Your task to perform on an android device: clear all cookies in the chrome app Image 0: 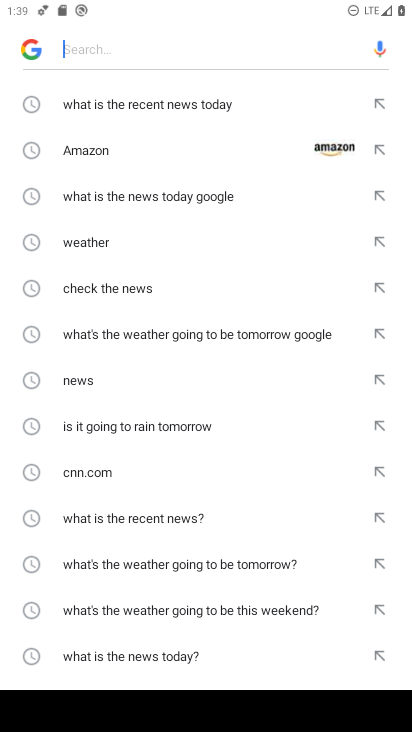
Step 0: press home button
Your task to perform on an android device: clear all cookies in the chrome app Image 1: 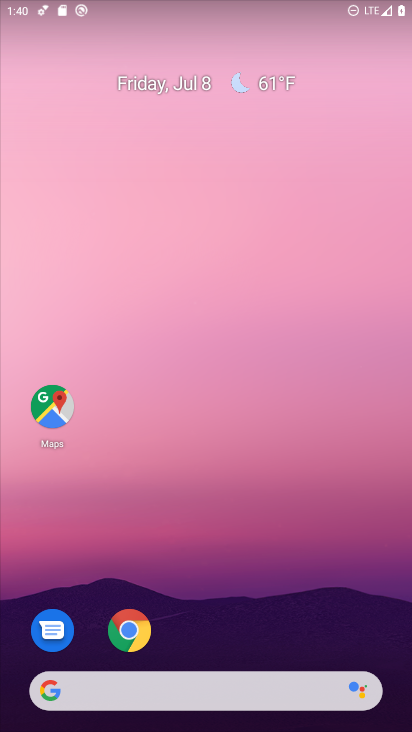
Step 1: drag from (351, 642) to (347, 10)
Your task to perform on an android device: clear all cookies in the chrome app Image 2: 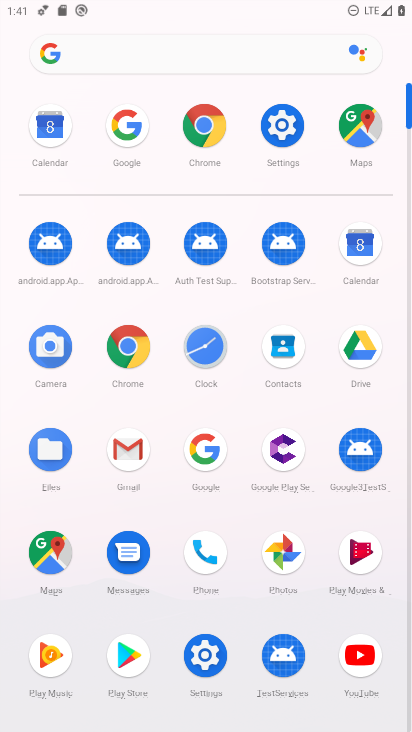
Step 2: click (207, 132)
Your task to perform on an android device: clear all cookies in the chrome app Image 3: 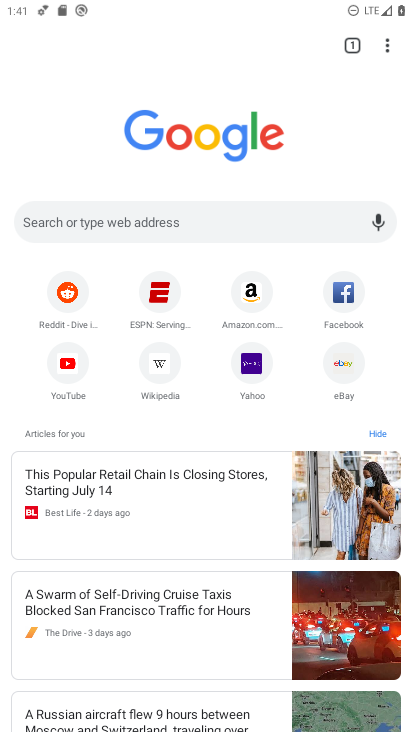
Step 3: click (394, 33)
Your task to perform on an android device: clear all cookies in the chrome app Image 4: 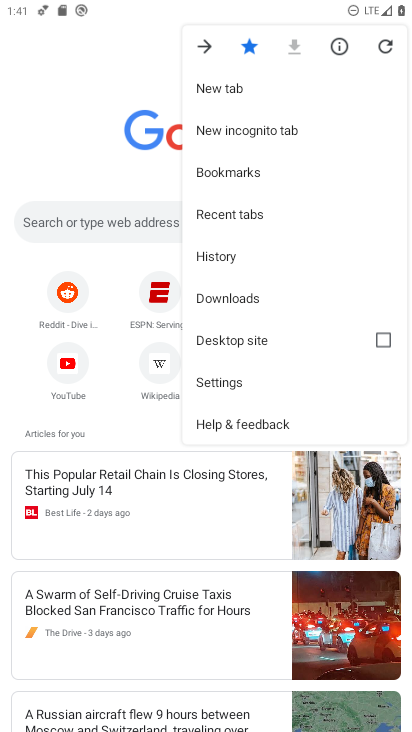
Step 4: click (236, 249)
Your task to perform on an android device: clear all cookies in the chrome app Image 5: 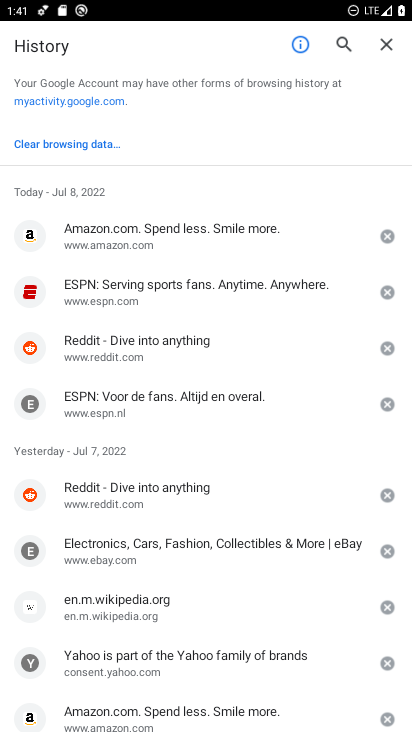
Step 5: click (44, 139)
Your task to perform on an android device: clear all cookies in the chrome app Image 6: 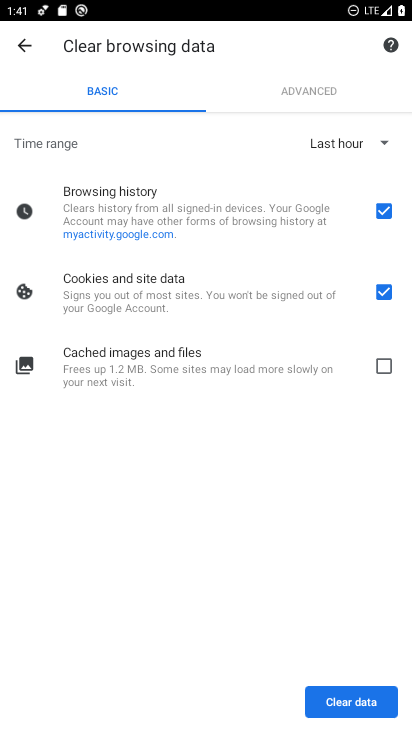
Step 6: click (337, 704)
Your task to perform on an android device: clear all cookies in the chrome app Image 7: 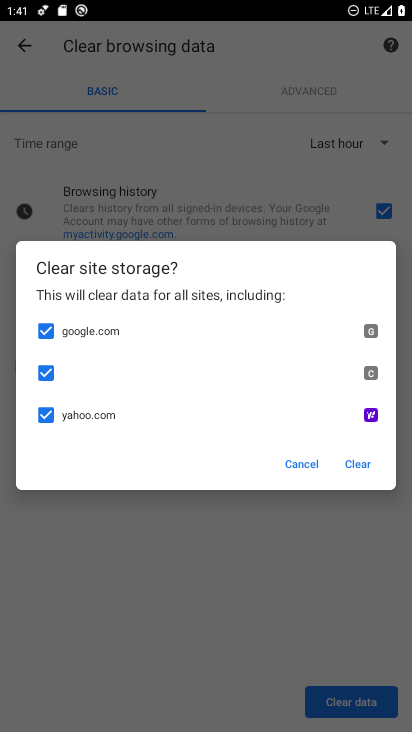
Step 7: click (362, 444)
Your task to perform on an android device: clear all cookies in the chrome app Image 8: 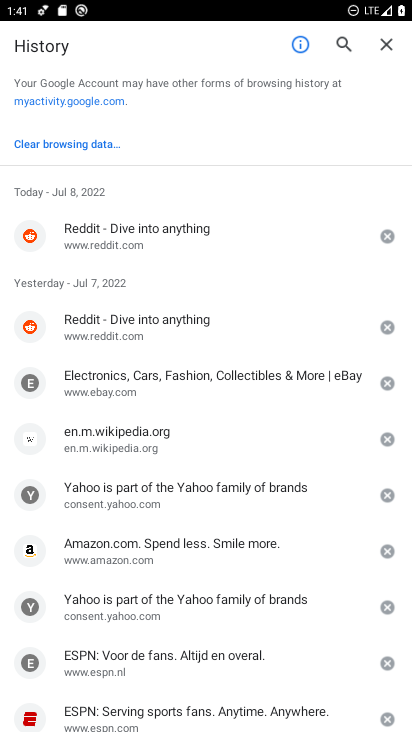
Step 8: task complete